Your task to perform on an android device: set default search engine in the chrome app Image 0: 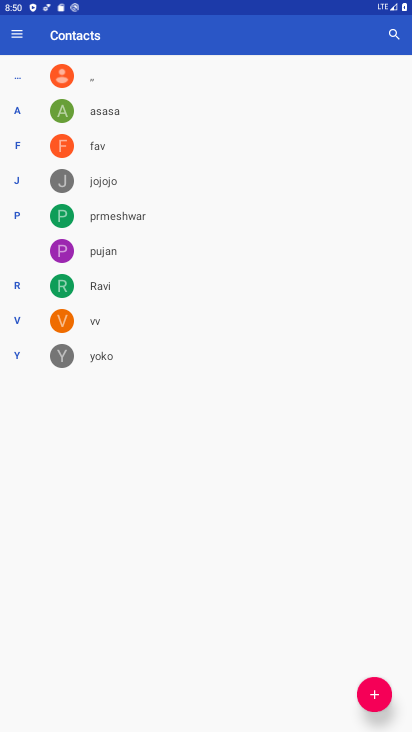
Step 0: press home button
Your task to perform on an android device: set default search engine in the chrome app Image 1: 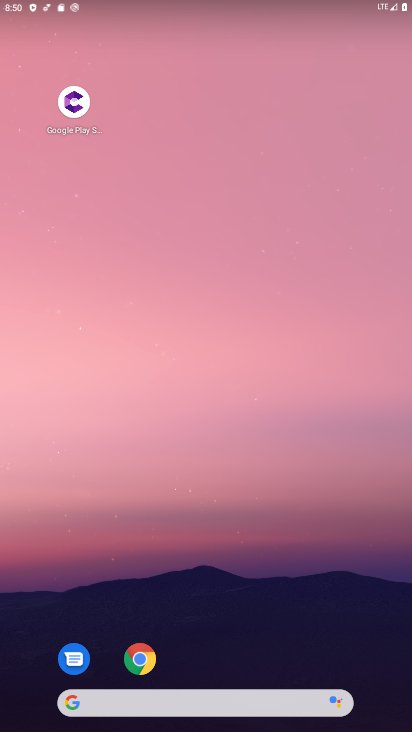
Step 1: click (131, 665)
Your task to perform on an android device: set default search engine in the chrome app Image 2: 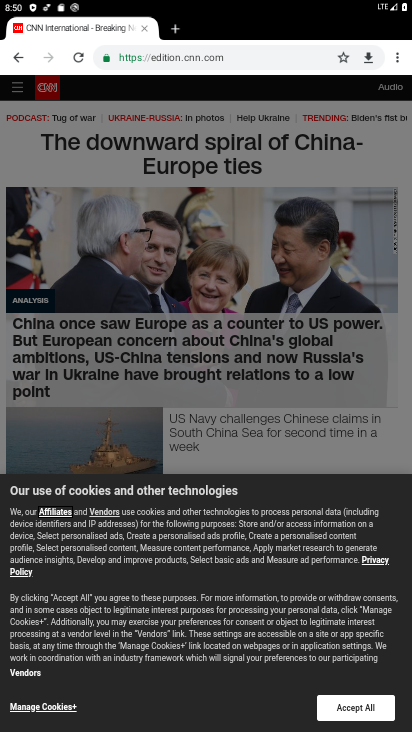
Step 2: drag from (400, 53) to (313, 359)
Your task to perform on an android device: set default search engine in the chrome app Image 3: 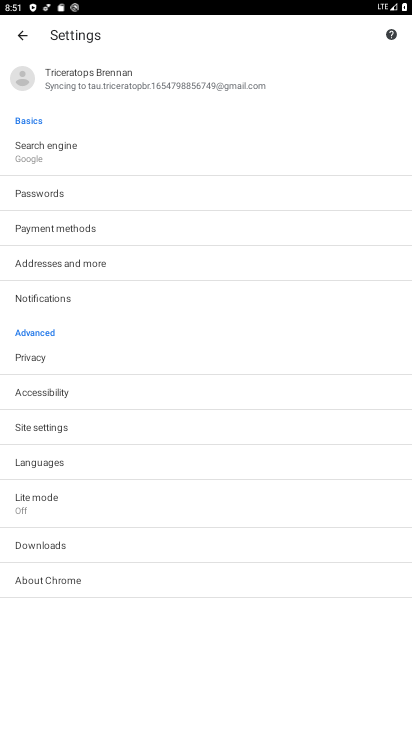
Step 3: click (96, 149)
Your task to perform on an android device: set default search engine in the chrome app Image 4: 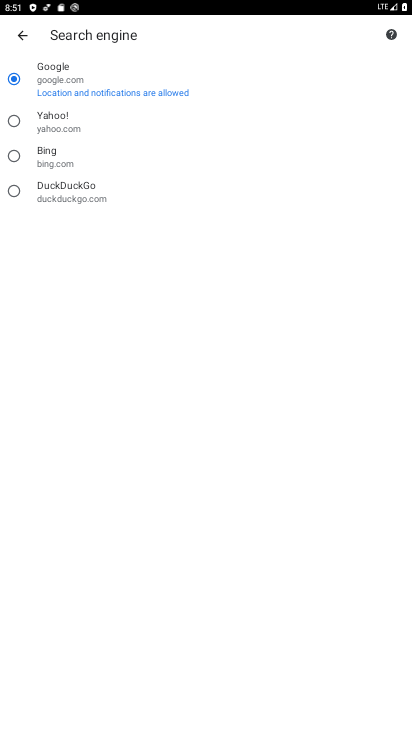
Step 4: click (57, 158)
Your task to perform on an android device: set default search engine in the chrome app Image 5: 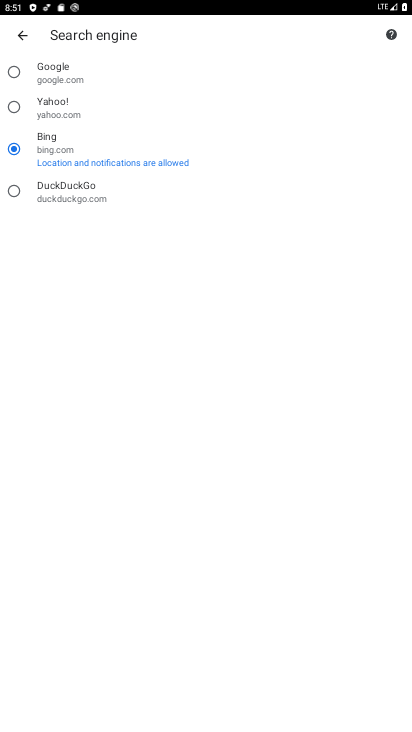
Step 5: task complete